Your task to perform on an android device: Open Youtube and go to "Your channel" Image 0: 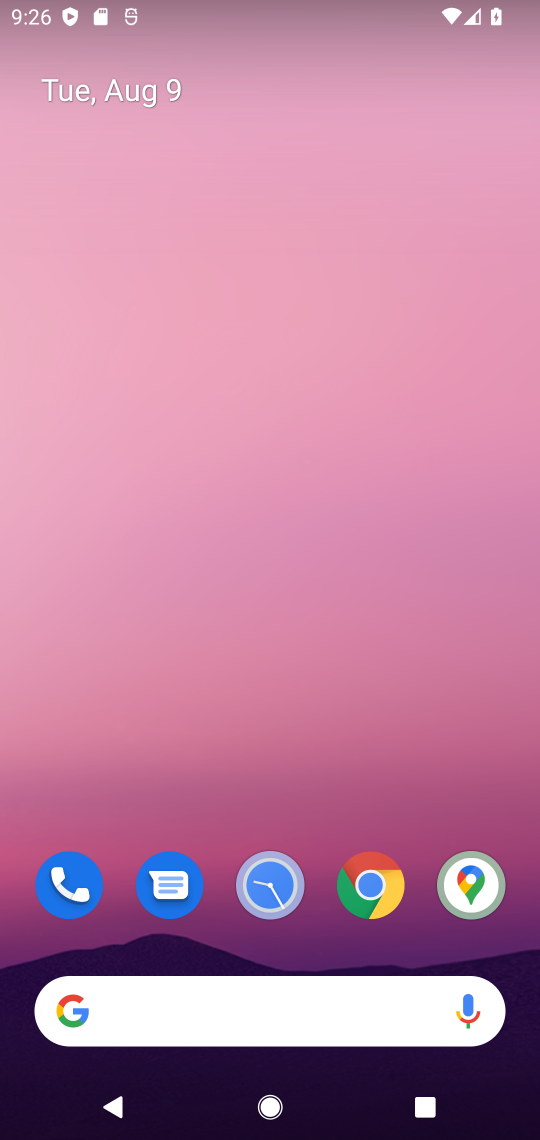
Step 0: drag from (315, 818) to (398, 20)
Your task to perform on an android device: Open Youtube and go to "Your channel" Image 1: 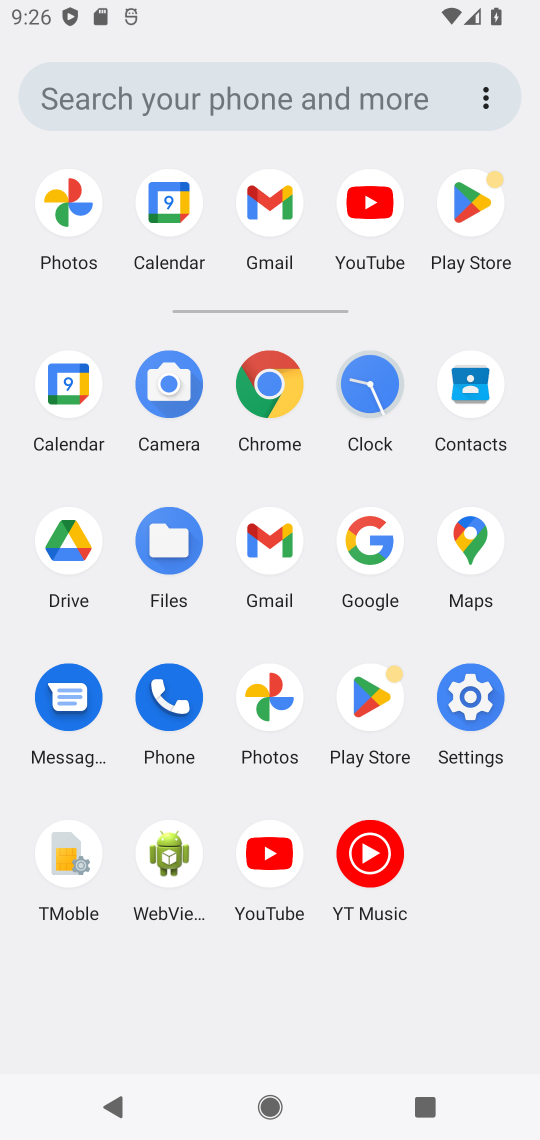
Step 1: click (265, 854)
Your task to perform on an android device: Open Youtube and go to "Your channel" Image 2: 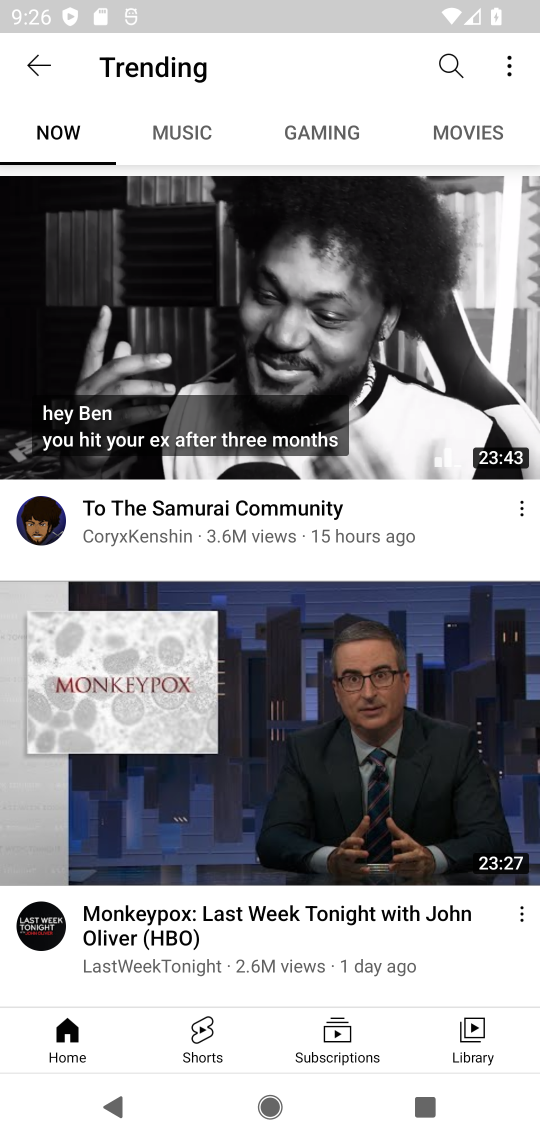
Step 2: click (43, 58)
Your task to perform on an android device: Open Youtube and go to "Your channel" Image 3: 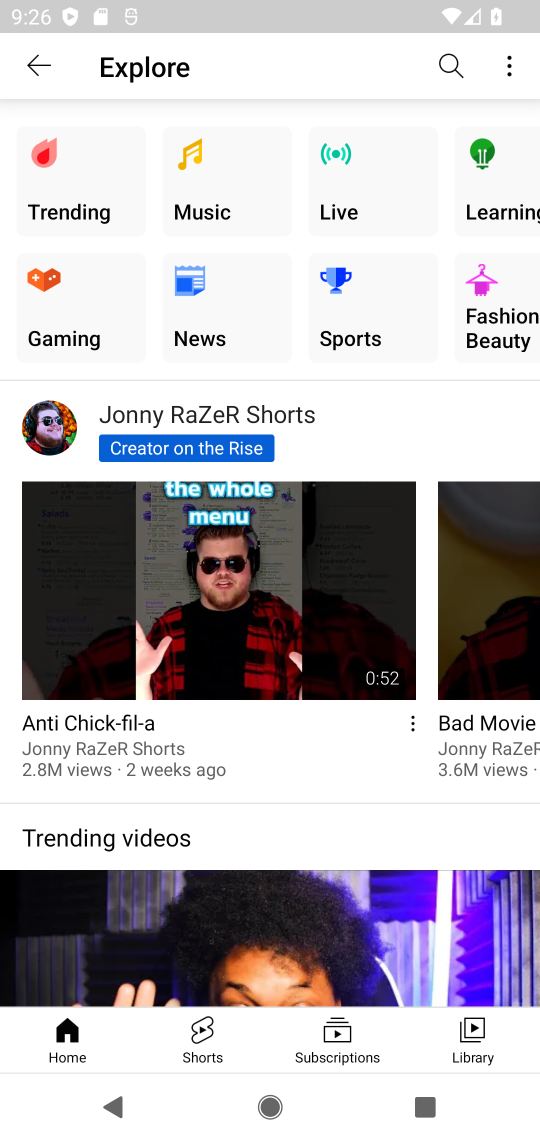
Step 3: click (53, 71)
Your task to perform on an android device: Open Youtube and go to "Your channel" Image 4: 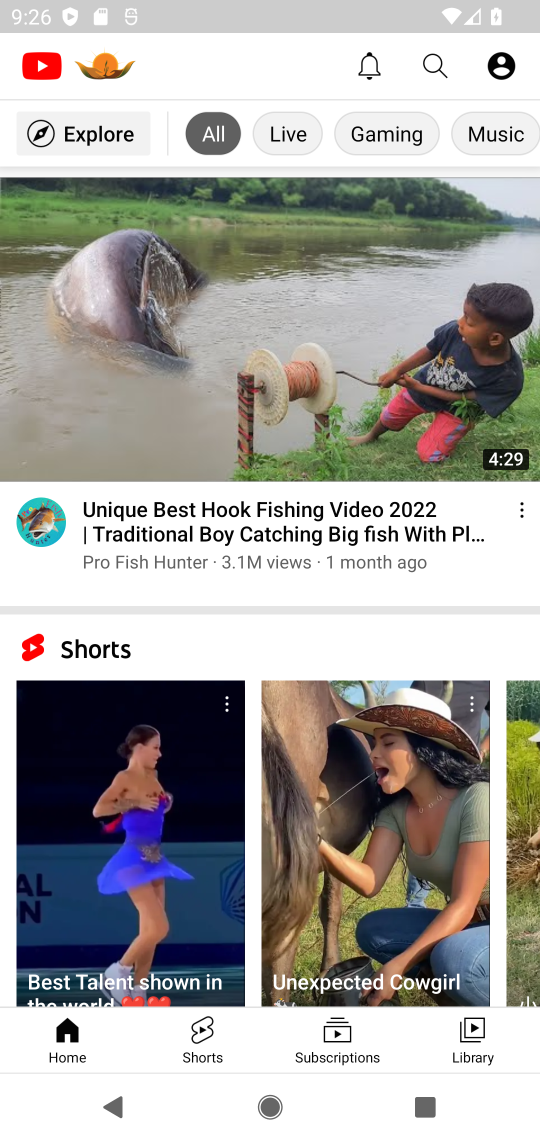
Step 4: click (510, 66)
Your task to perform on an android device: Open Youtube and go to "Your channel" Image 5: 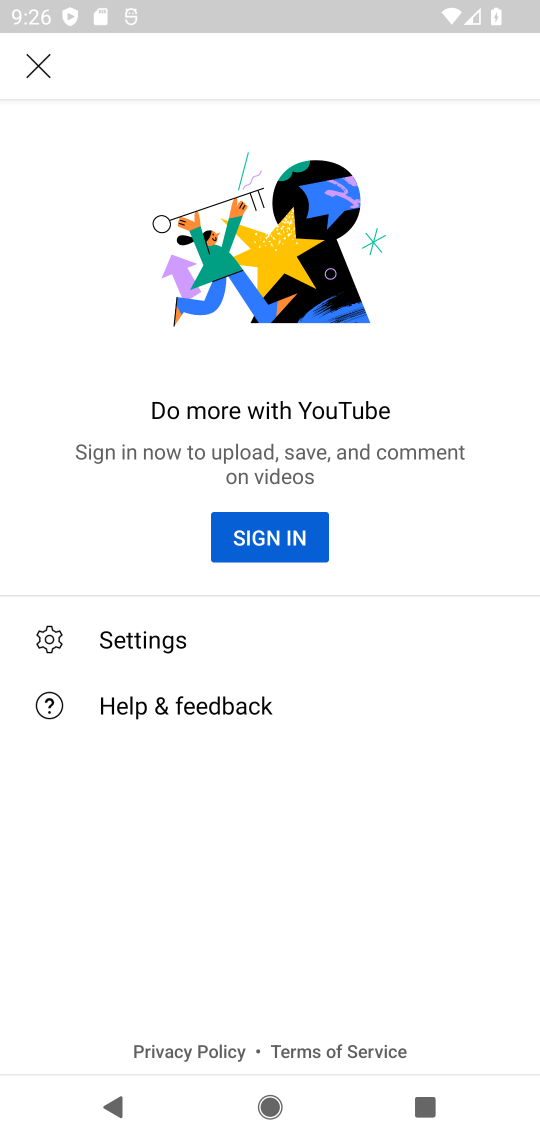
Step 5: click (262, 526)
Your task to perform on an android device: Open Youtube and go to "Your channel" Image 6: 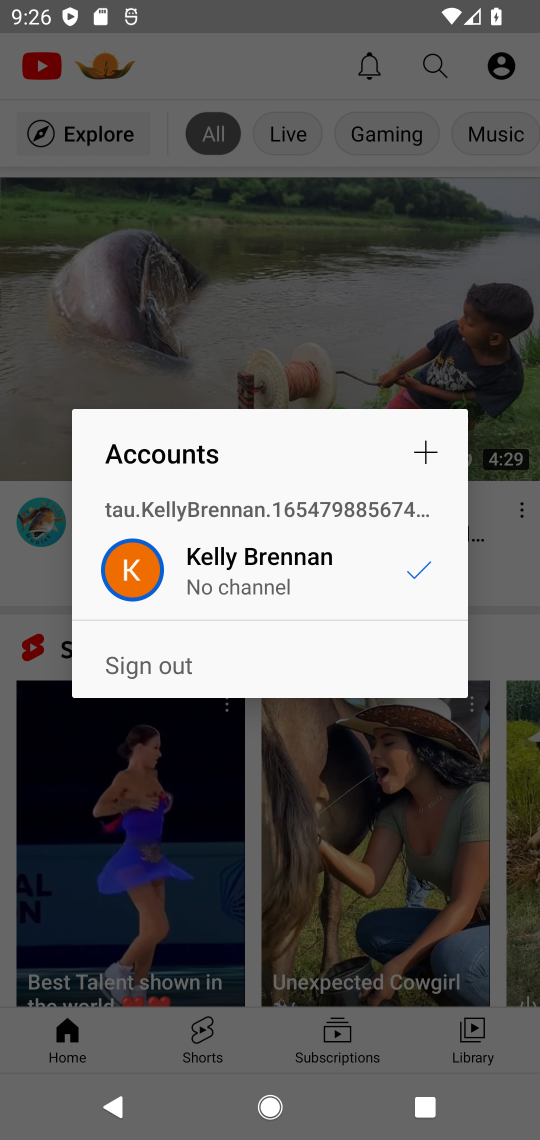
Step 6: click (265, 579)
Your task to perform on an android device: Open Youtube and go to "Your channel" Image 7: 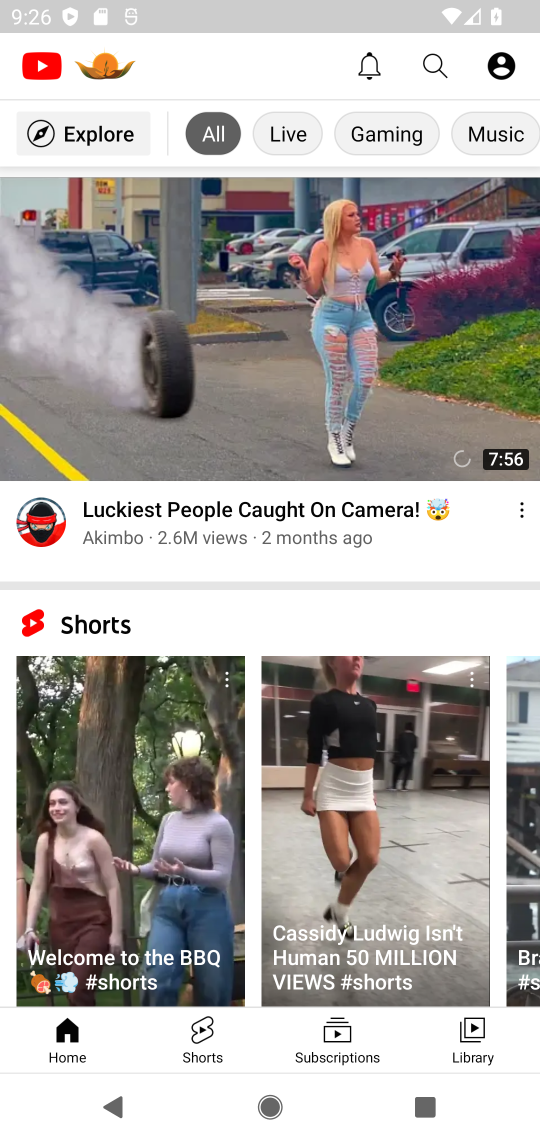
Step 7: click (494, 59)
Your task to perform on an android device: Open Youtube and go to "Your channel" Image 8: 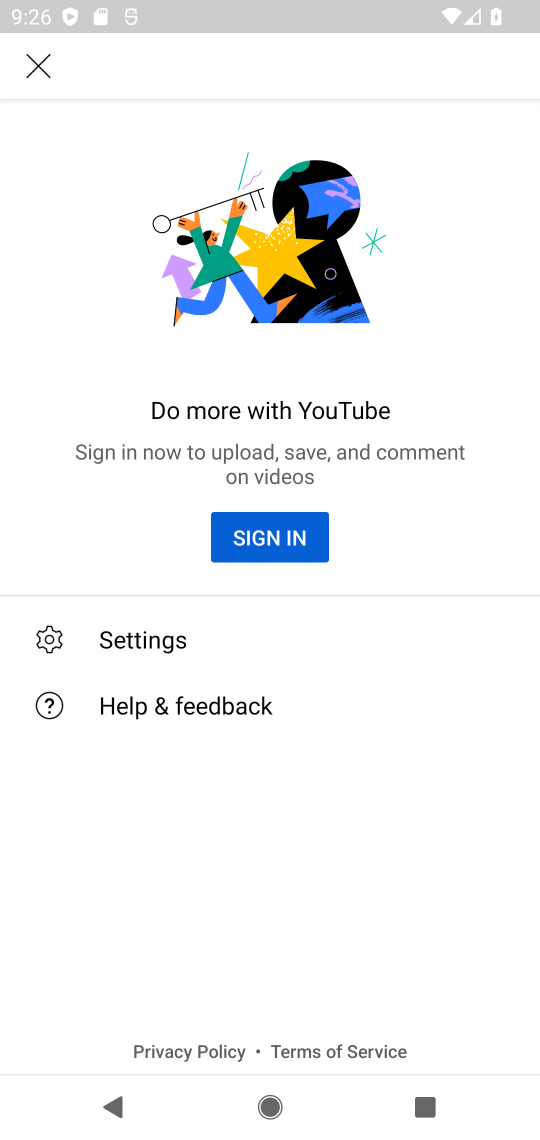
Step 8: drag from (327, 528) to (332, 1067)
Your task to perform on an android device: Open Youtube and go to "Your channel" Image 9: 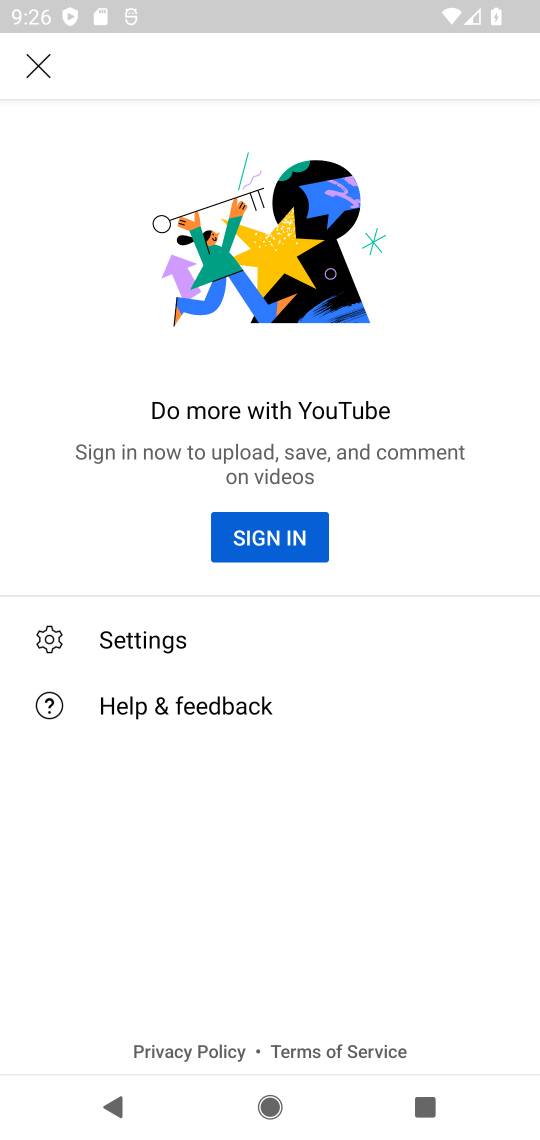
Step 9: click (46, 58)
Your task to perform on an android device: Open Youtube and go to "Your channel" Image 10: 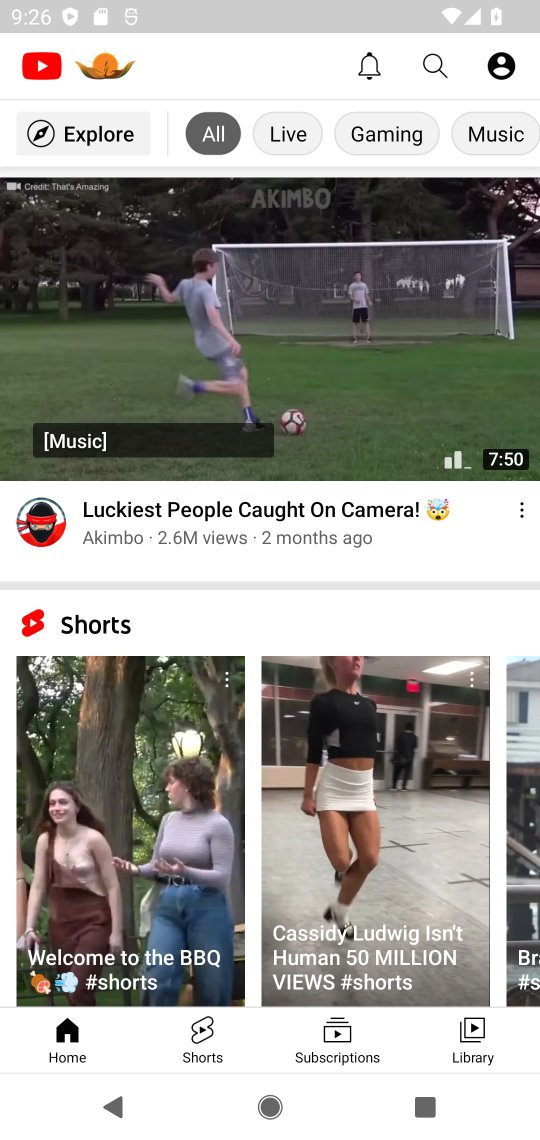
Step 10: click (496, 65)
Your task to perform on an android device: Open Youtube and go to "Your channel" Image 11: 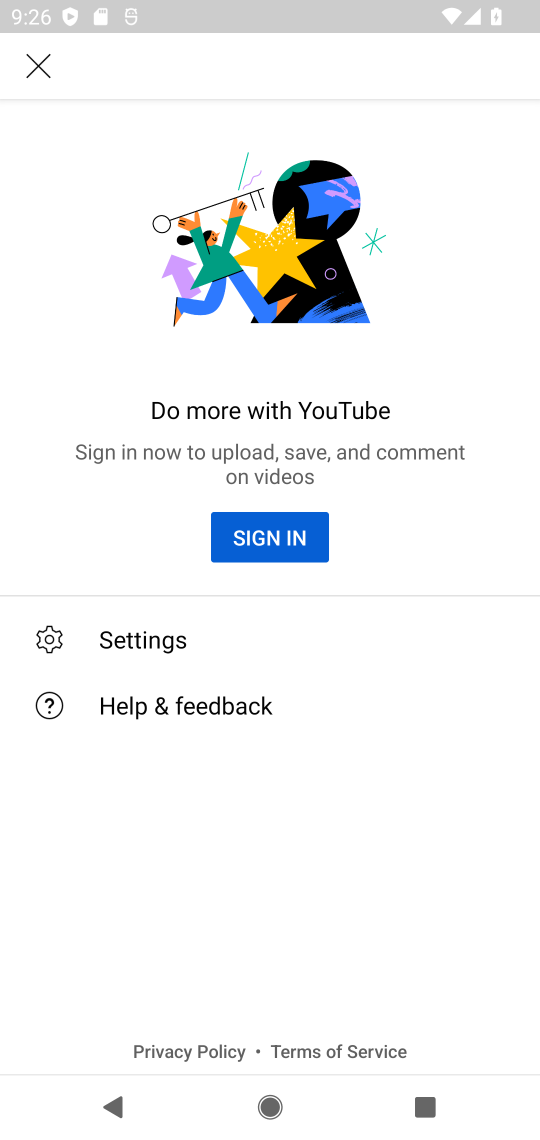
Step 11: task complete